Your task to perform on an android device: clear all cookies in the chrome app Image 0: 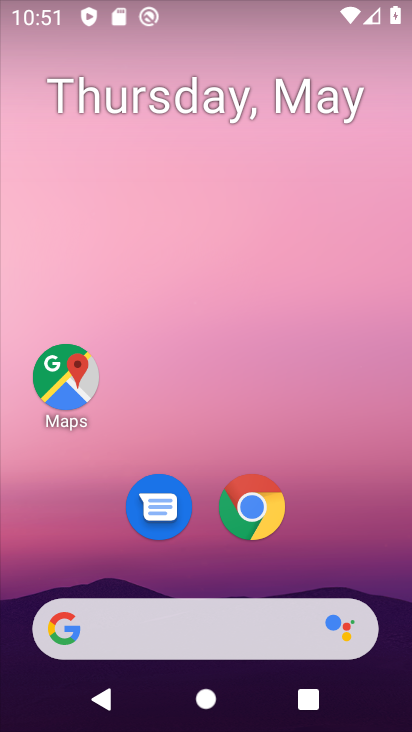
Step 0: click (270, 497)
Your task to perform on an android device: clear all cookies in the chrome app Image 1: 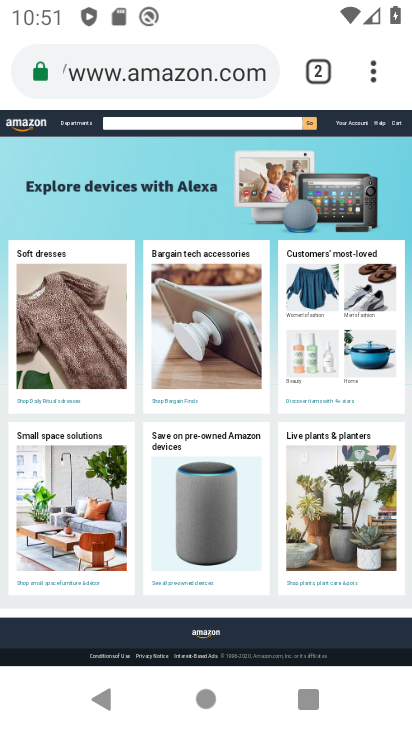
Step 1: click (43, 70)
Your task to perform on an android device: clear all cookies in the chrome app Image 2: 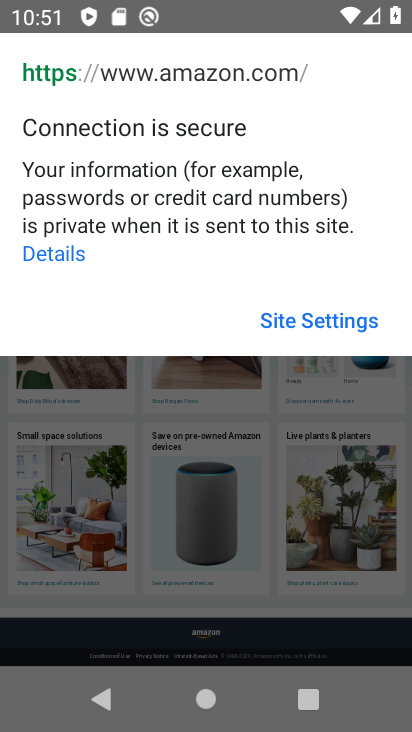
Step 2: click (59, 265)
Your task to perform on an android device: clear all cookies in the chrome app Image 3: 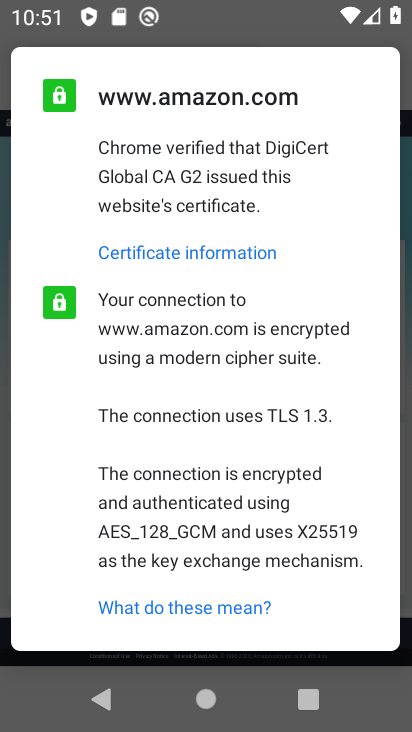
Step 3: click (122, 684)
Your task to perform on an android device: clear all cookies in the chrome app Image 4: 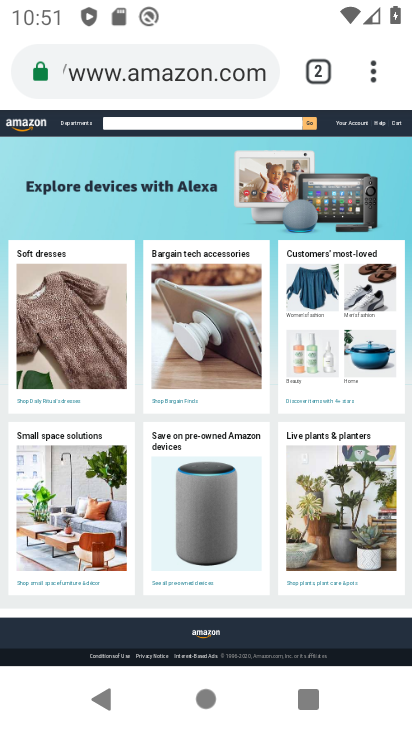
Step 4: click (375, 77)
Your task to perform on an android device: clear all cookies in the chrome app Image 5: 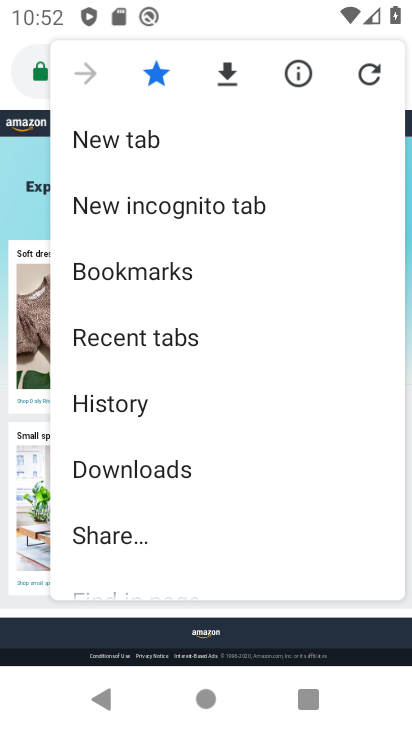
Step 5: drag from (322, 431) to (199, 50)
Your task to perform on an android device: clear all cookies in the chrome app Image 6: 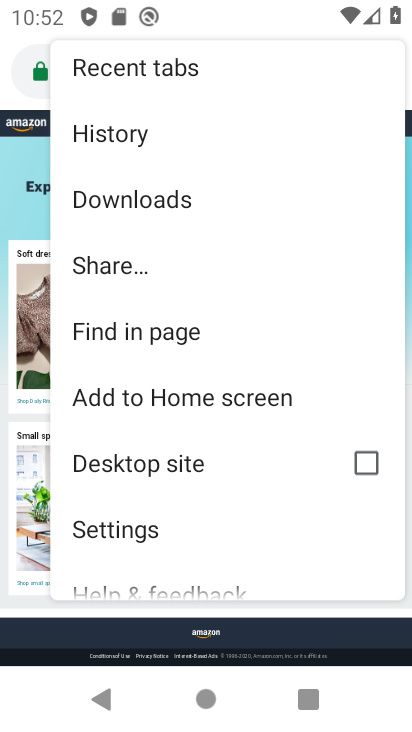
Step 6: click (150, 527)
Your task to perform on an android device: clear all cookies in the chrome app Image 7: 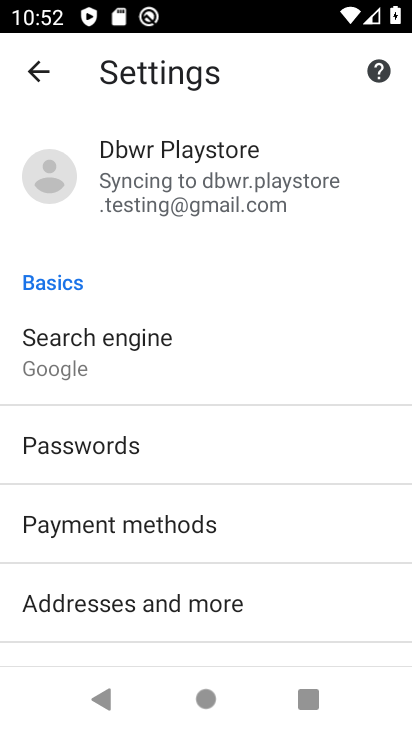
Step 7: click (150, 527)
Your task to perform on an android device: clear all cookies in the chrome app Image 8: 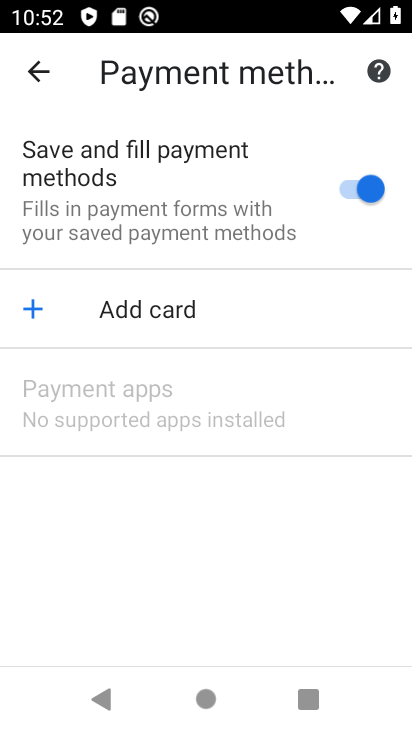
Step 8: click (40, 71)
Your task to perform on an android device: clear all cookies in the chrome app Image 9: 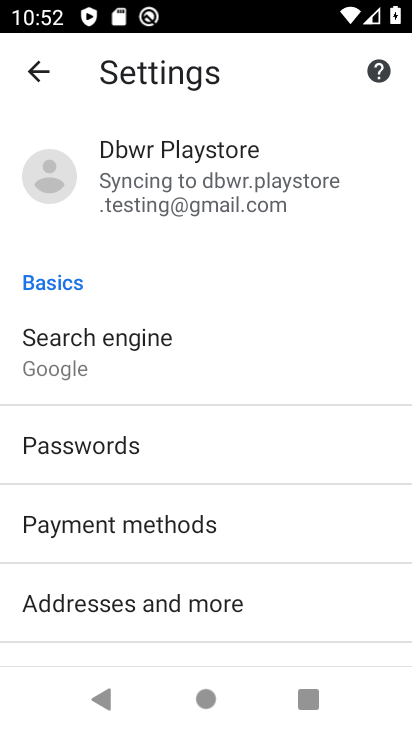
Step 9: drag from (130, 631) to (155, 93)
Your task to perform on an android device: clear all cookies in the chrome app Image 10: 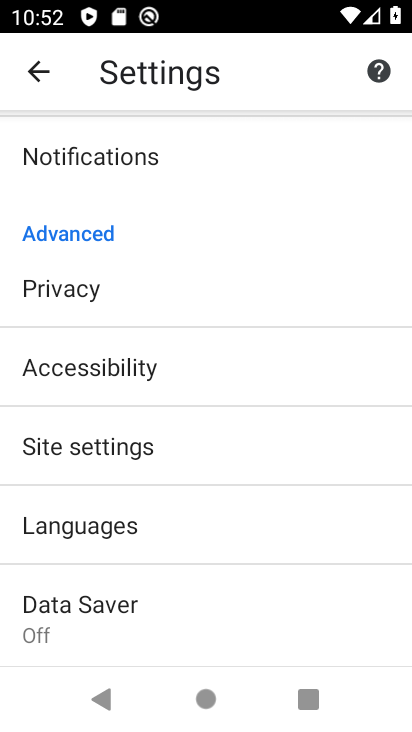
Step 10: drag from (62, 575) to (107, 364)
Your task to perform on an android device: clear all cookies in the chrome app Image 11: 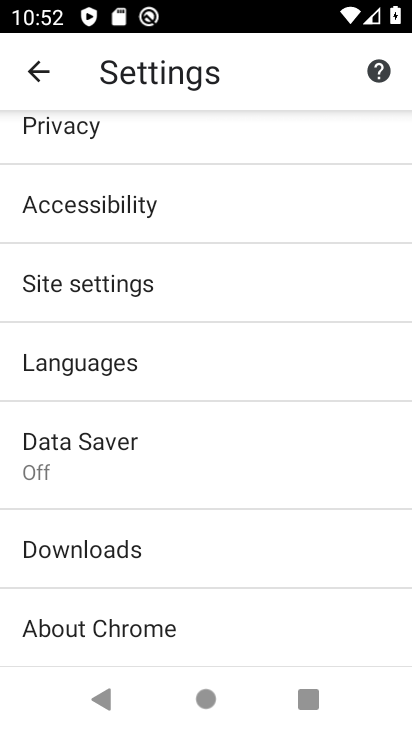
Step 11: drag from (246, 235) to (285, 725)
Your task to perform on an android device: clear all cookies in the chrome app Image 12: 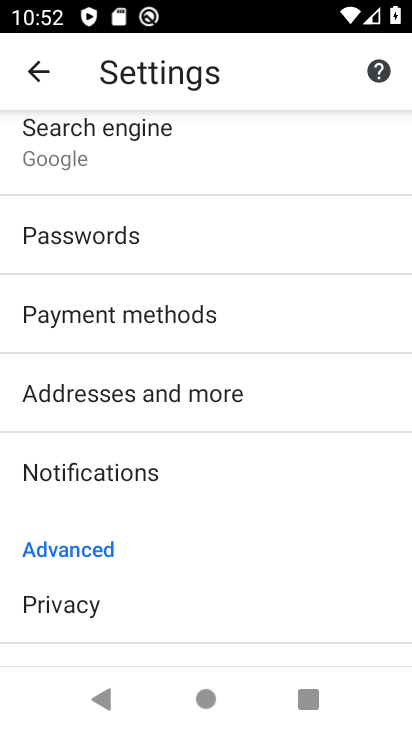
Step 12: drag from (221, 221) to (32, 708)
Your task to perform on an android device: clear all cookies in the chrome app Image 13: 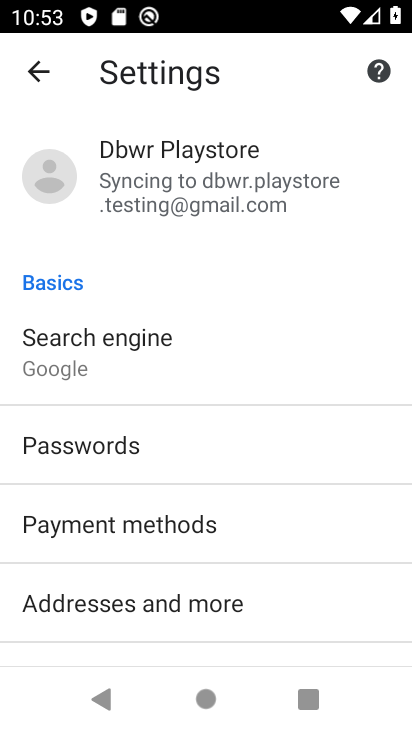
Step 13: click (35, 75)
Your task to perform on an android device: clear all cookies in the chrome app Image 14: 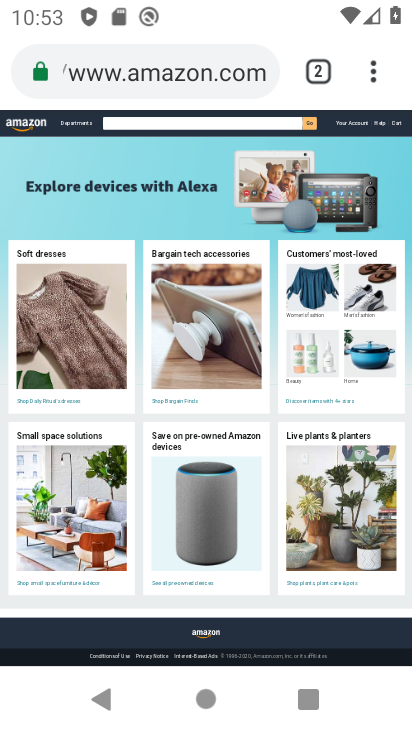
Step 14: click (369, 69)
Your task to perform on an android device: clear all cookies in the chrome app Image 15: 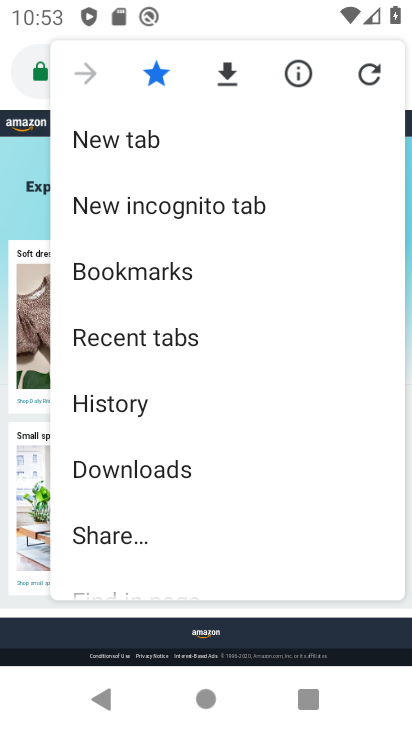
Step 15: click (127, 411)
Your task to perform on an android device: clear all cookies in the chrome app Image 16: 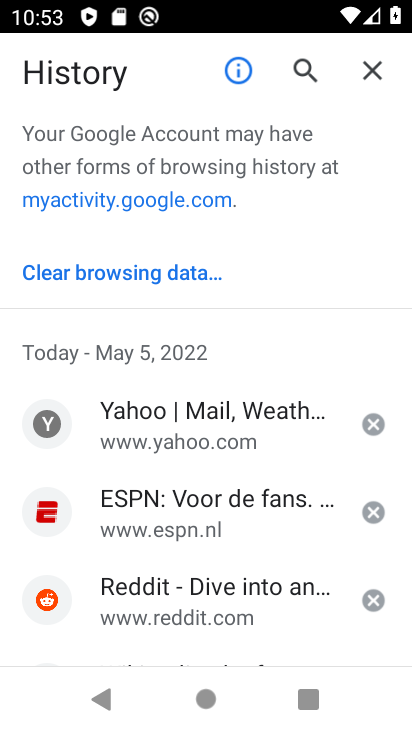
Step 16: click (136, 270)
Your task to perform on an android device: clear all cookies in the chrome app Image 17: 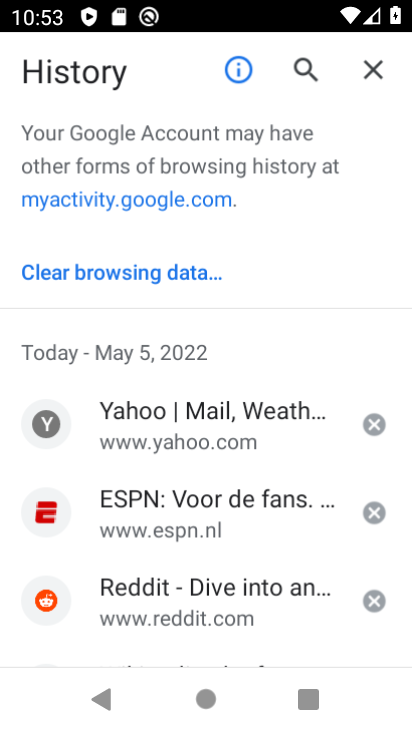
Step 17: click (136, 270)
Your task to perform on an android device: clear all cookies in the chrome app Image 18: 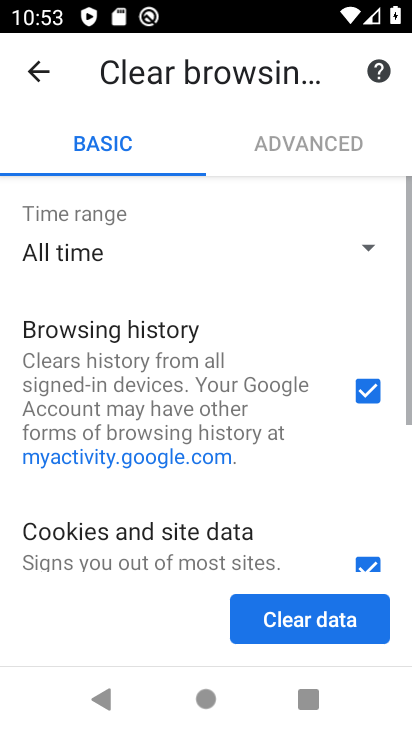
Step 18: click (280, 627)
Your task to perform on an android device: clear all cookies in the chrome app Image 19: 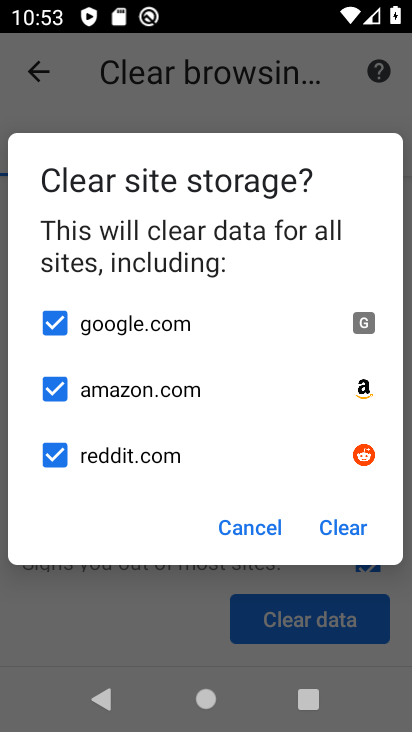
Step 19: click (347, 529)
Your task to perform on an android device: clear all cookies in the chrome app Image 20: 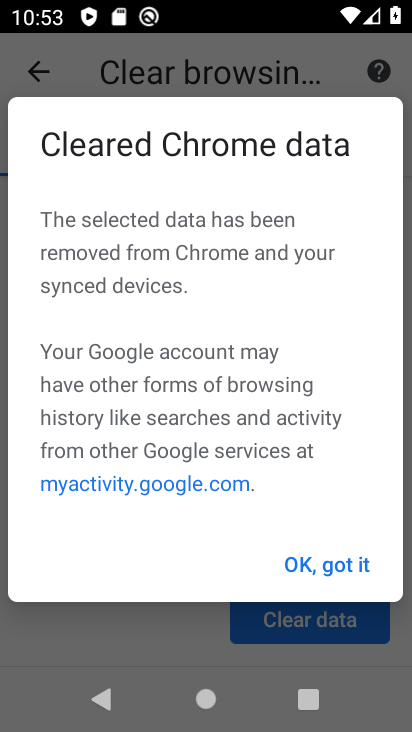
Step 20: task complete